Your task to perform on an android device: Go to CNN.com Image 0: 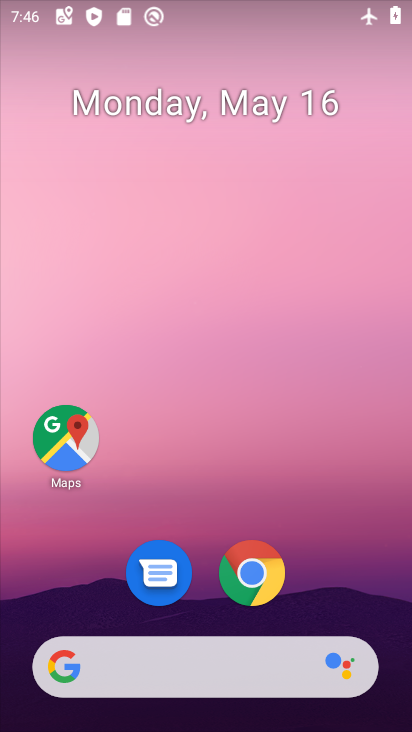
Step 0: drag from (390, 537) to (321, 26)
Your task to perform on an android device: Go to CNN.com Image 1: 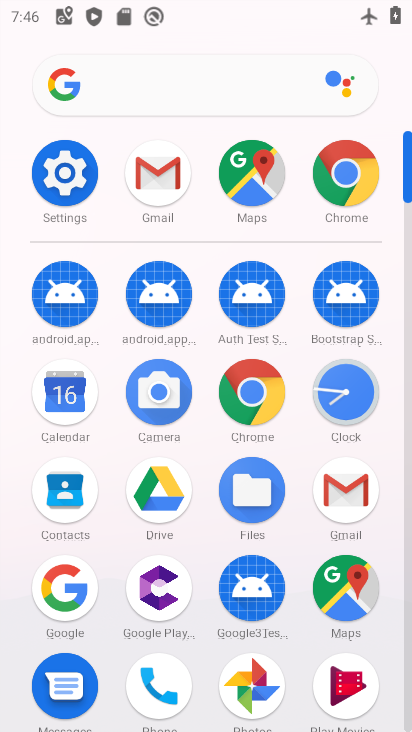
Step 1: click (343, 180)
Your task to perform on an android device: Go to CNN.com Image 2: 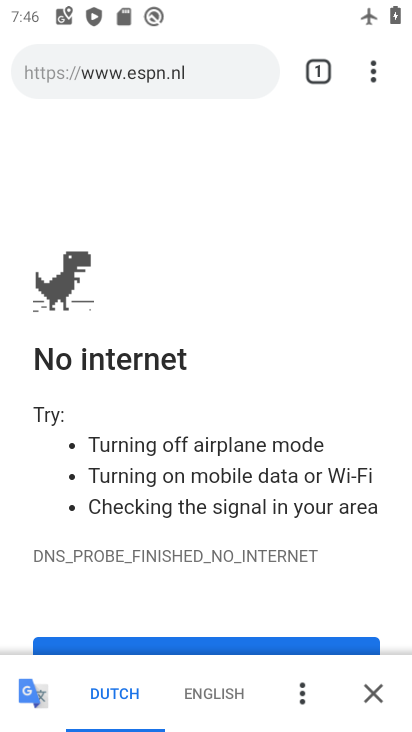
Step 2: click (181, 69)
Your task to perform on an android device: Go to CNN.com Image 3: 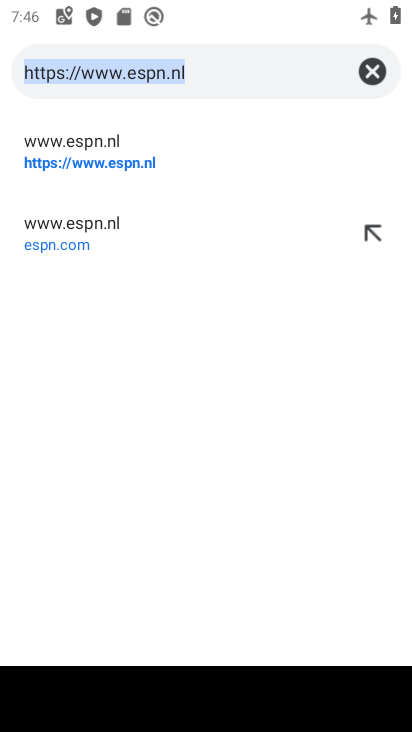
Step 3: click (373, 80)
Your task to perform on an android device: Go to CNN.com Image 4: 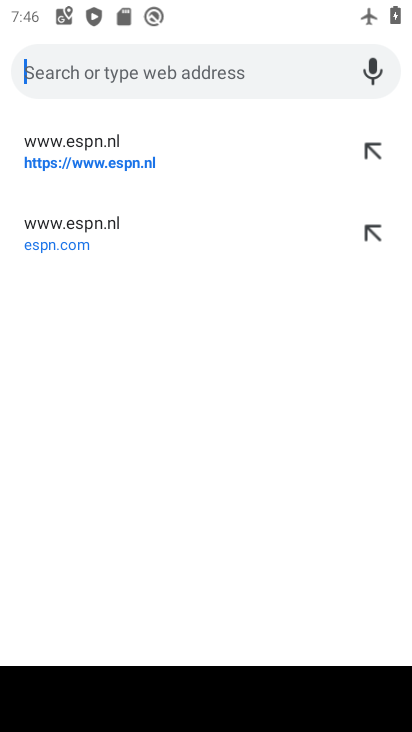
Step 4: type "cnn"
Your task to perform on an android device: Go to CNN.com Image 5: 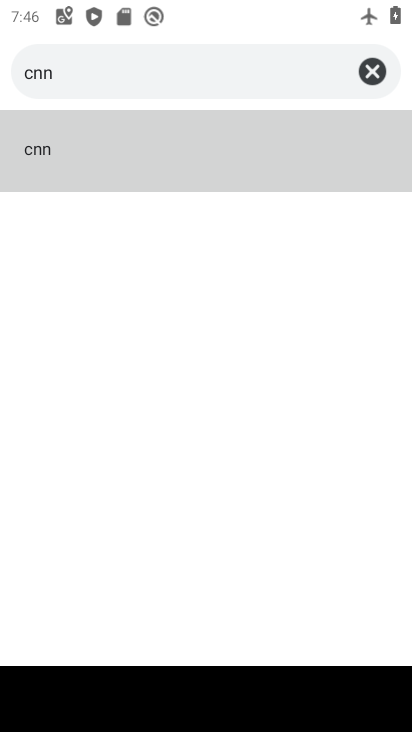
Step 5: click (76, 161)
Your task to perform on an android device: Go to CNN.com Image 6: 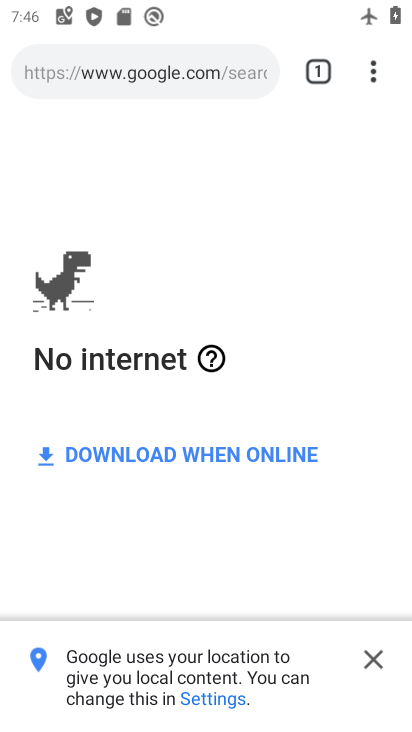
Step 6: task complete